Your task to perform on an android device: Open maps Image 0: 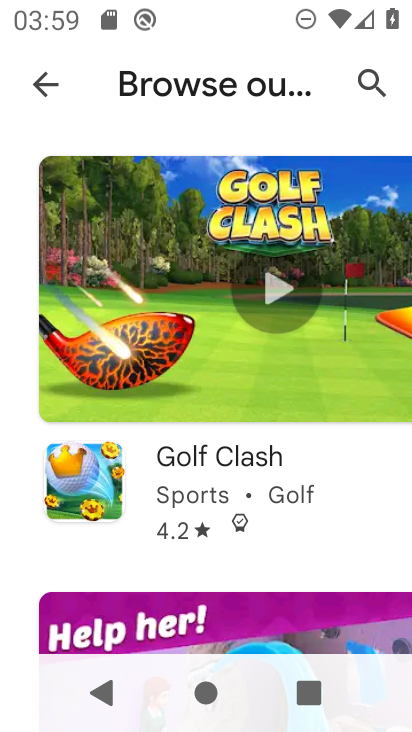
Step 0: press back button
Your task to perform on an android device: Open maps Image 1: 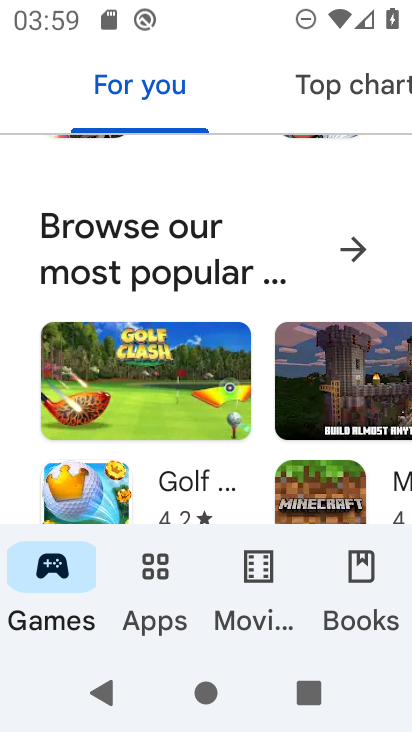
Step 1: press back button
Your task to perform on an android device: Open maps Image 2: 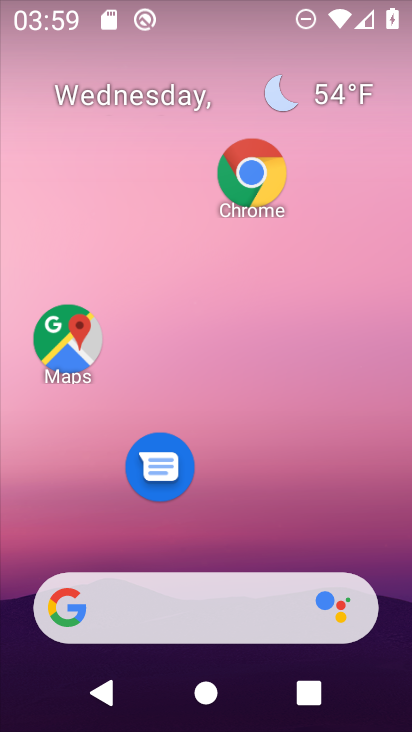
Step 2: click (57, 334)
Your task to perform on an android device: Open maps Image 3: 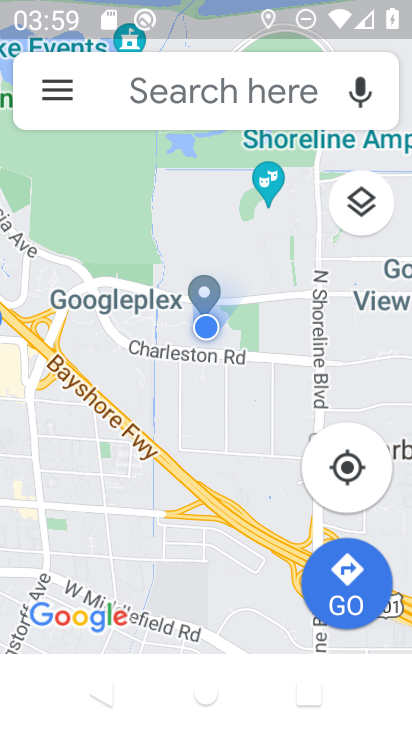
Step 3: task complete